Your task to perform on an android device: turn on priority inbox in the gmail app Image 0: 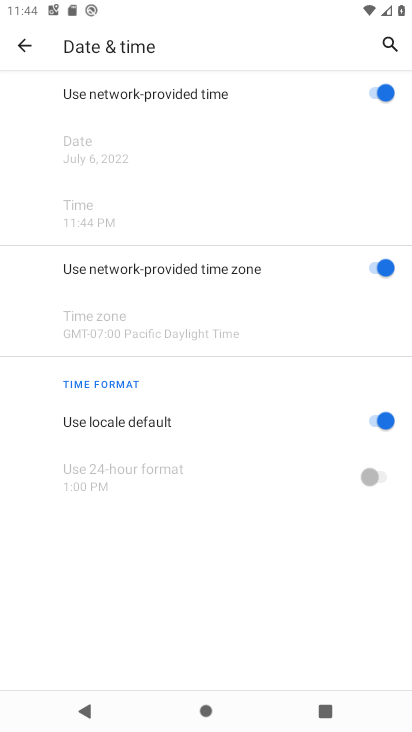
Step 0: press home button
Your task to perform on an android device: turn on priority inbox in the gmail app Image 1: 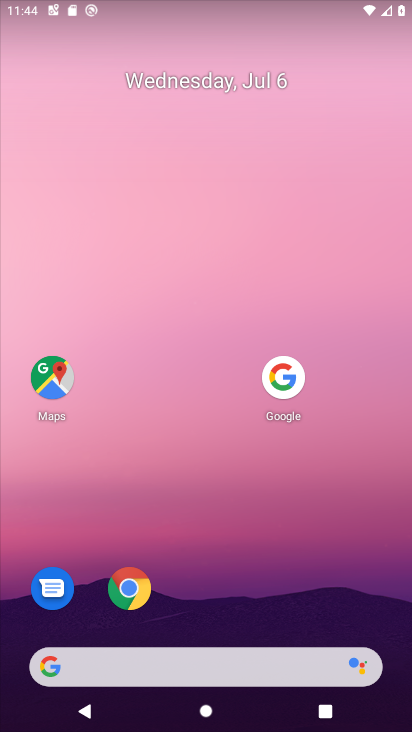
Step 1: drag from (202, 660) to (347, 148)
Your task to perform on an android device: turn on priority inbox in the gmail app Image 2: 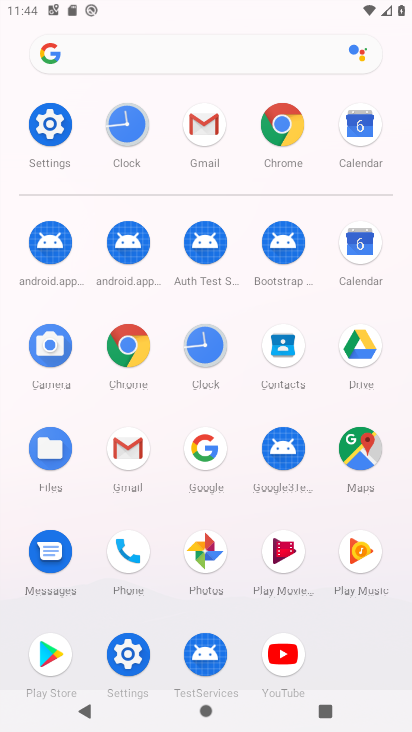
Step 2: click (130, 448)
Your task to perform on an android device: turn on priority inbox in the gmail app Image 3: 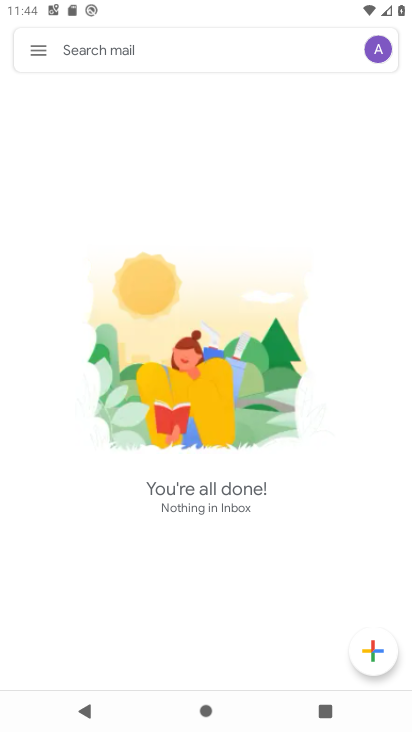
Step 3: click (43, 51)
Your task to perform on an android device: turn on priority inbox in the gmail app Image 4: 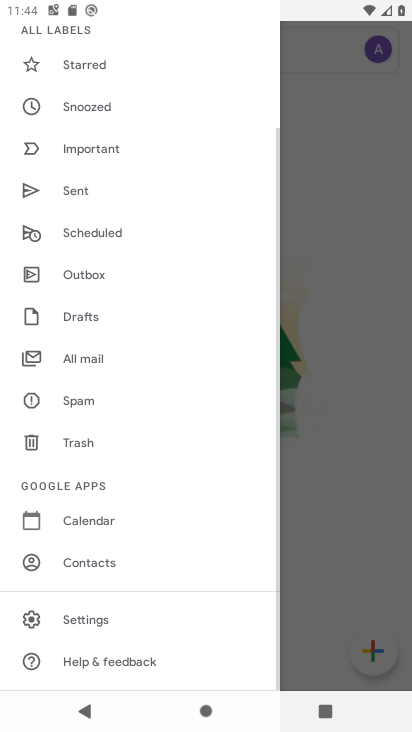
Step 4: click (105, 621)
Your task to perform on an android device: turn on priority inbox in the gmail app Image 5: 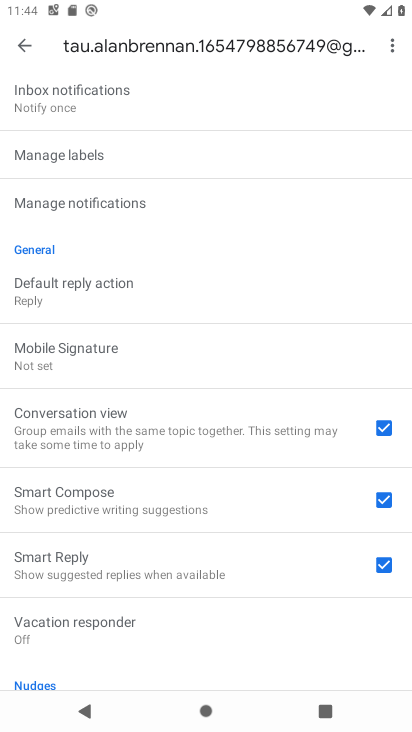
Step 5: drag from (207, 126) to (164, 611)
Your task to perform on an android device: turn on priority inbox in the gmail app Image 6: 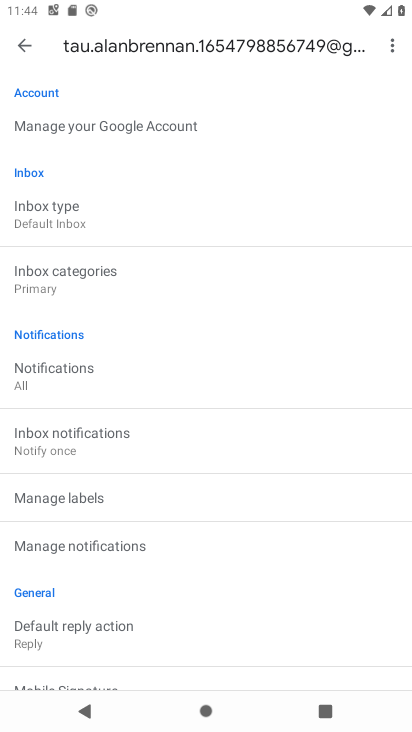
Step 6: click (61, 219)
Your task to perform on an android device: turn on priority inbox in the gmail app Image 7: 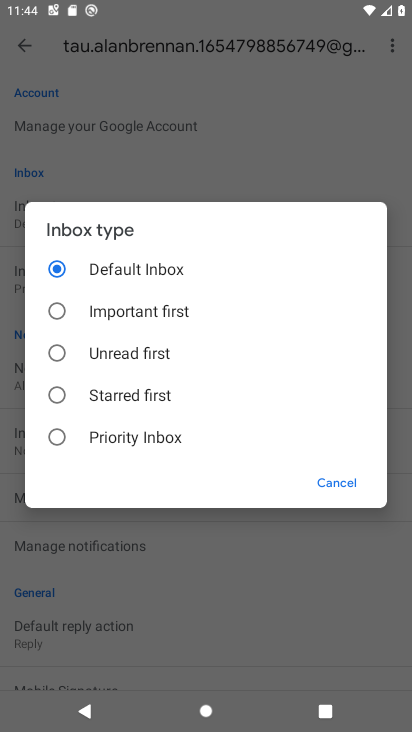
Step 7: click (57, 432)
Your task to perform on an android device: turn on priority inbox in the gmail app Image 8: 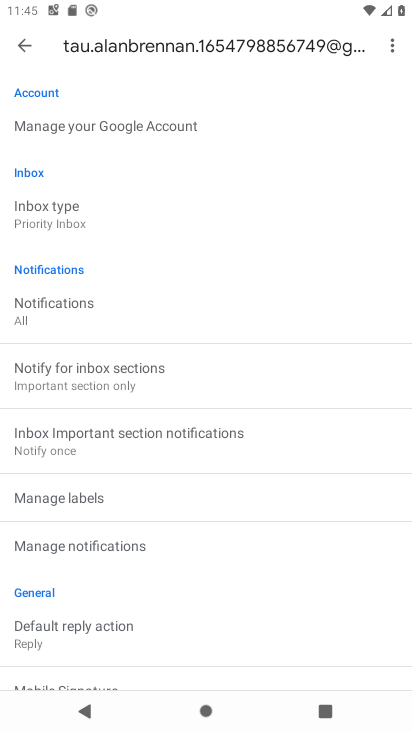
Step 8: task complete